Your task to perform on an android device: Open internet settings Image 0: 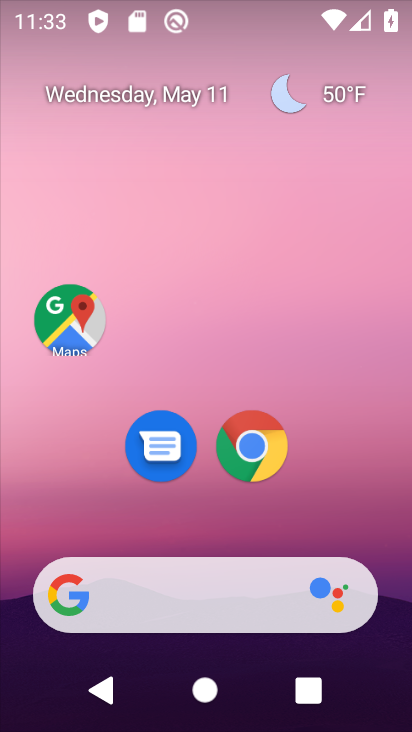
Step 0: drag from (339, 457) to (281, 175)
Your task to perform on an android device: Open internet settings Image 1: 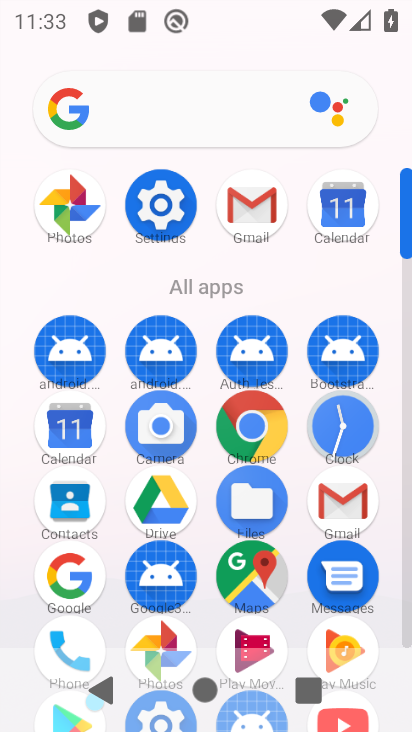
Step 1: click (158, 207)
Your task to perform on an android device: Open internet settings Image 2: 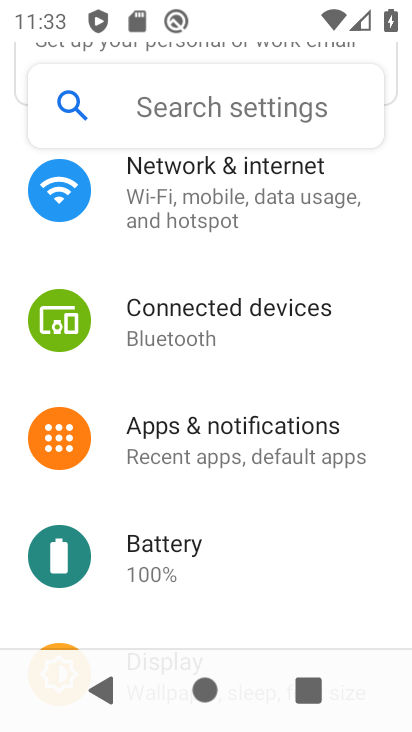
Step 2: click (228, 194)
Your task to perform on an android device: Open internet settings Image 3: 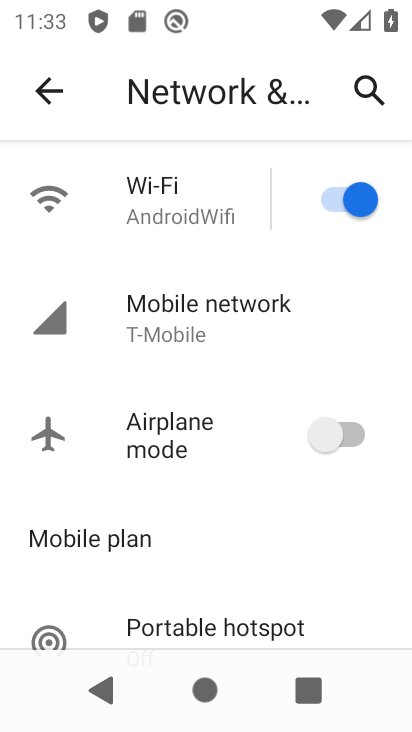
Step 3: task complete